Your task to perform on an android device: star an email in the gmail app Image 0: 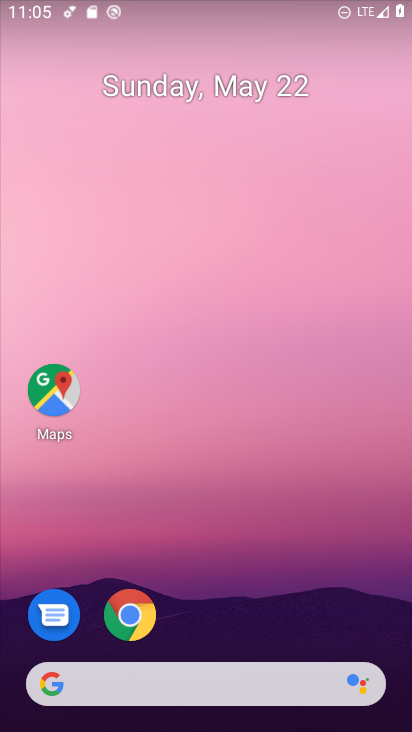
Step 0: drag from (263, 596) to (259, 150)
Your task to perform on an android device: star an email in the gmail app Image 1: 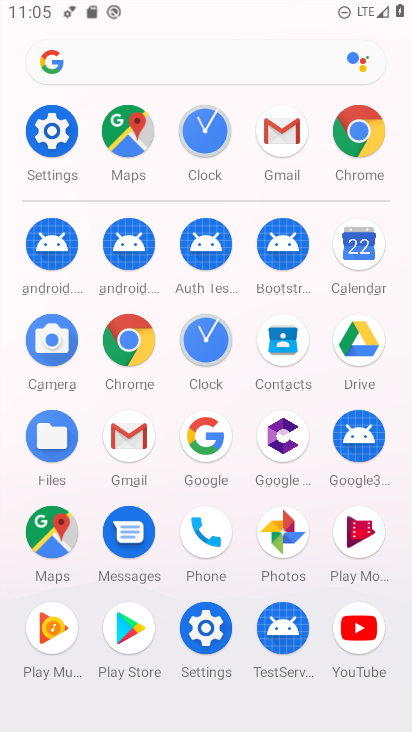
Step 1: click (298, 142)
Your task to perform on an android device: star an email in the gmail app Image 2: 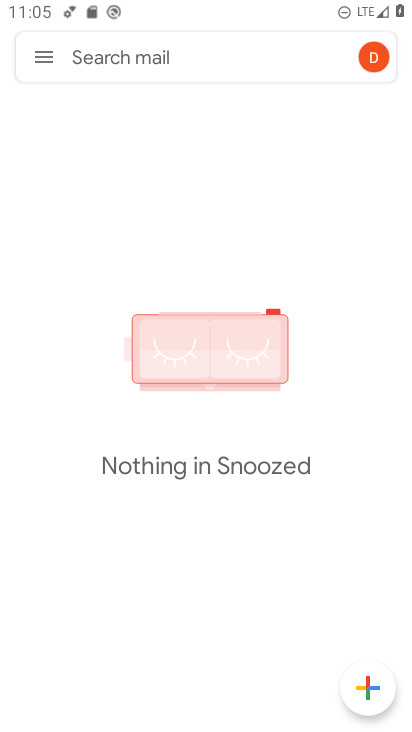
Step 2: click (377, 54)
Your task to perform on an android device: star an email in the gmail app Image 3: 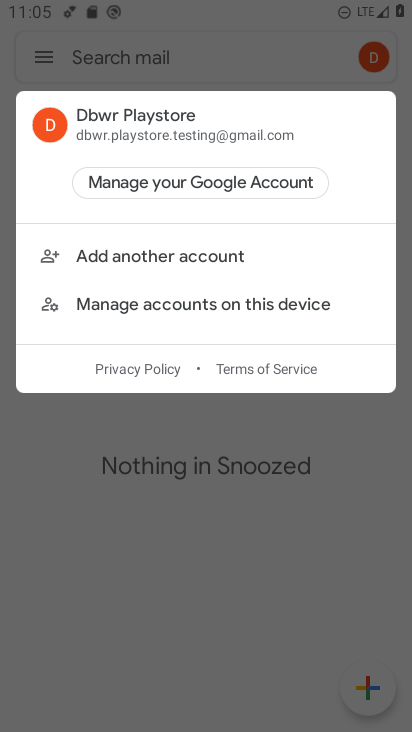
Step 3: click (184, 501)
Your task to perform on an android device: star an email in the gmail app Image 4: 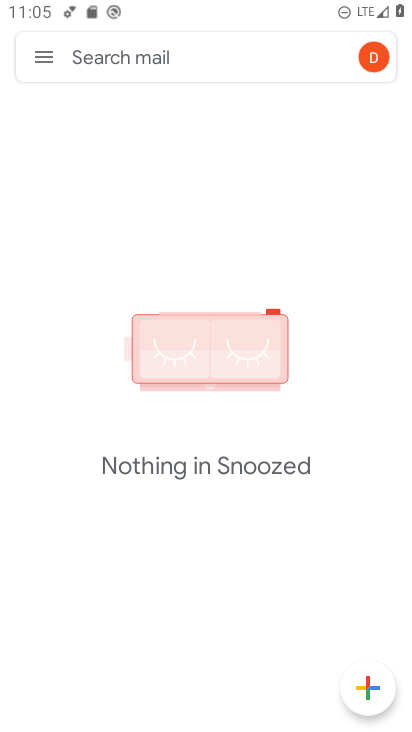
Step 4: click (40, 65)
Your task to perform on an android device: star an email in the gmail app Image 5: 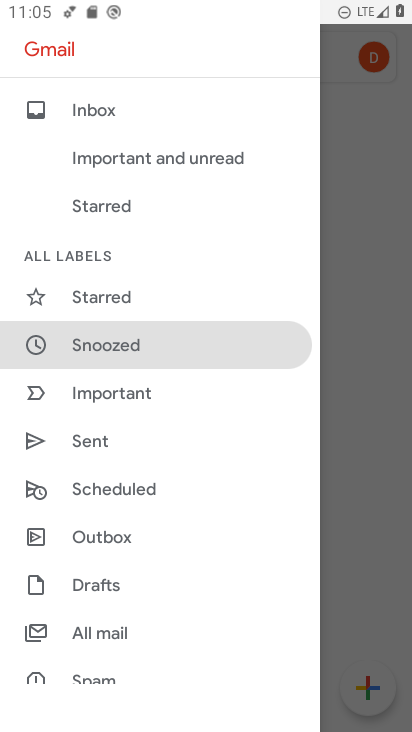
Step 5: drag from (181, 508) to (226, 201)
Your task to perform on an android device: star an email in the gmail app Image 6: 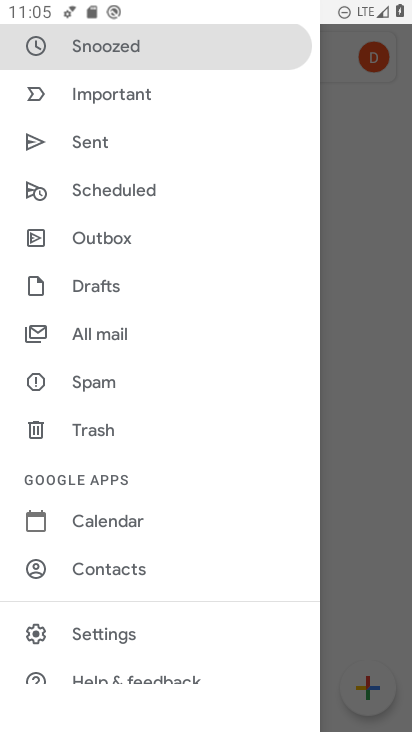
Step 6: click (94, 327)
Your task to perform on an android device: star an email in the gmail app Image 7: 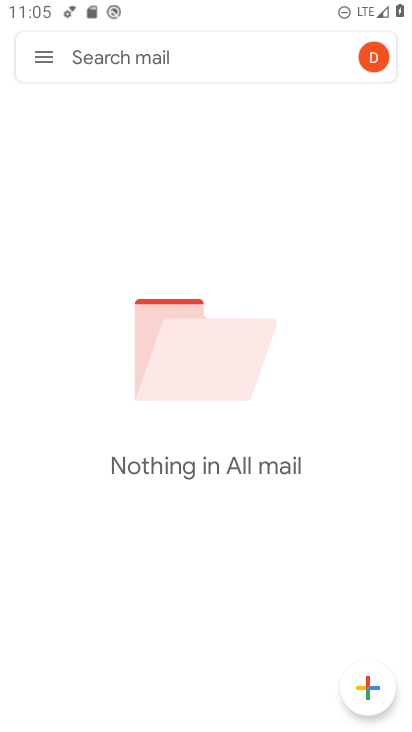
Step 7: task complete